Your task to perform on an android device: Open calendar and show me the fourth week of next month Image 0: 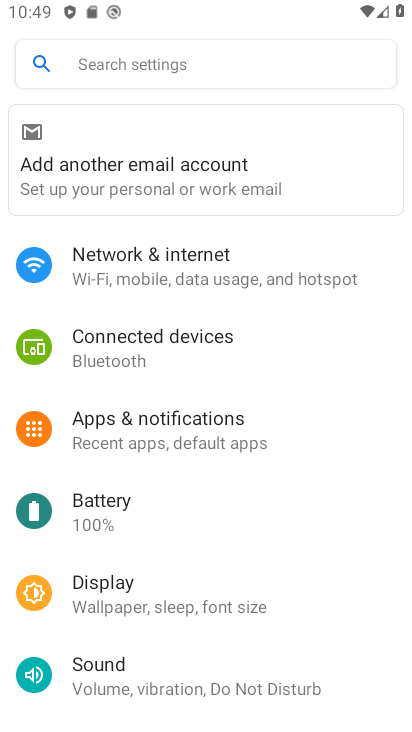
Step 0: press home button
Your task to perform on an android device: Open calendar and show me the fourth week of next month Image 1: 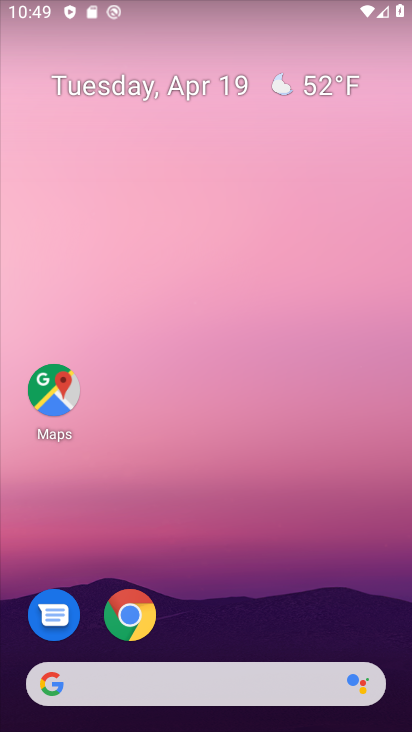
Step 1: drag from (269, 460) to (411, 54)
Your task to perform on an android device: Open calendar and show me the fourth week of next month Image 2: 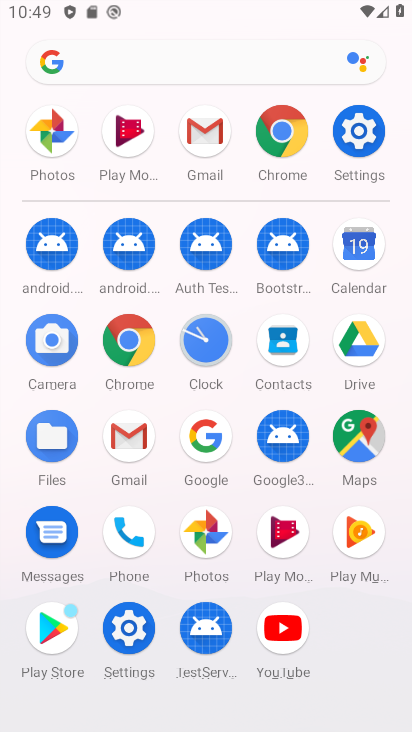
Step 2: click (360, 251)
Your task to perform on an android device: Open calendar and show me the fourth week of next month Image 3: 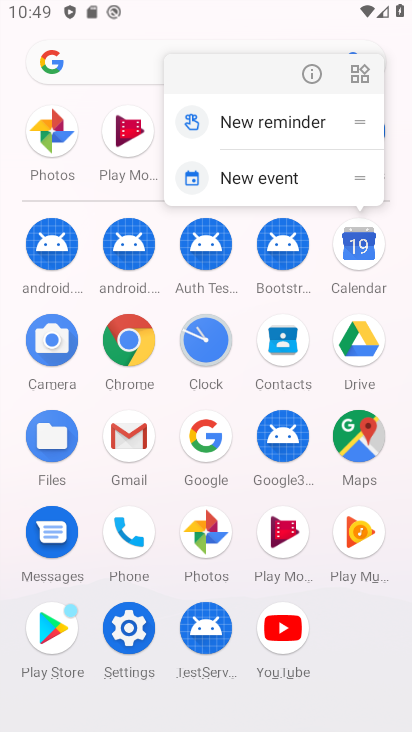
Step 3: click (360, 251)
Your task to perform on an android device: Open calendar and show me the fourth week of next month Image 4: 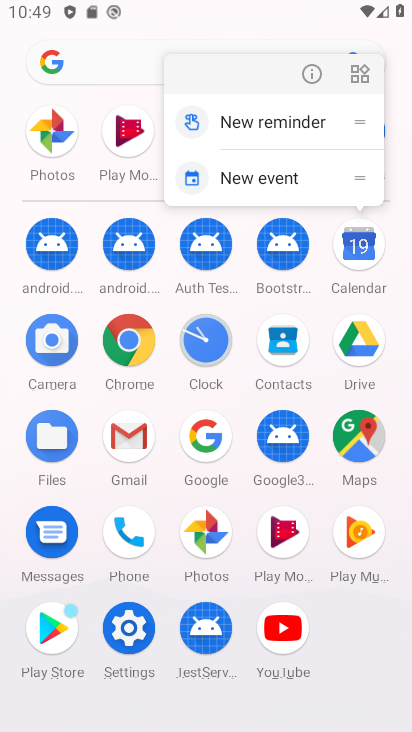
Step 4: click (360, 251)
Your task to perform on an android device: Open calendar and show me the fourth week of next month Image 5: 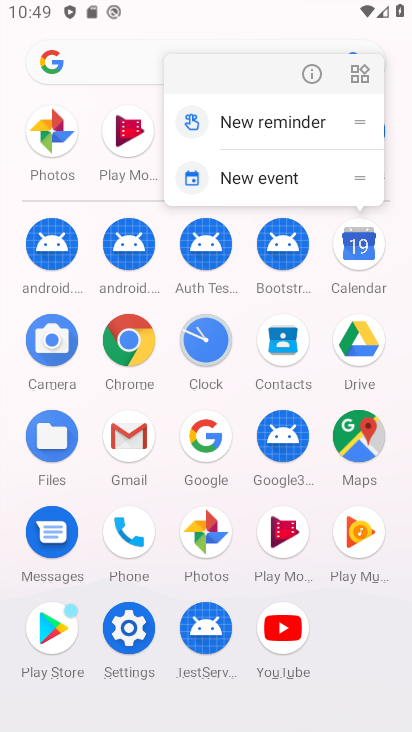
Step 5: click (360, 251)
Your task to perform on an android device: Open calendar and show me the fourth week of next month Image 6: 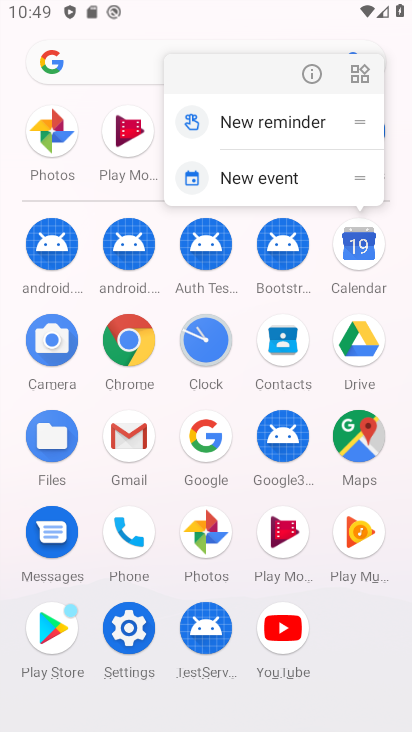
Step 6: click (360, 251)
Your task to perform on an android device: Open calendar and show me the fourth week of next month Image 7: 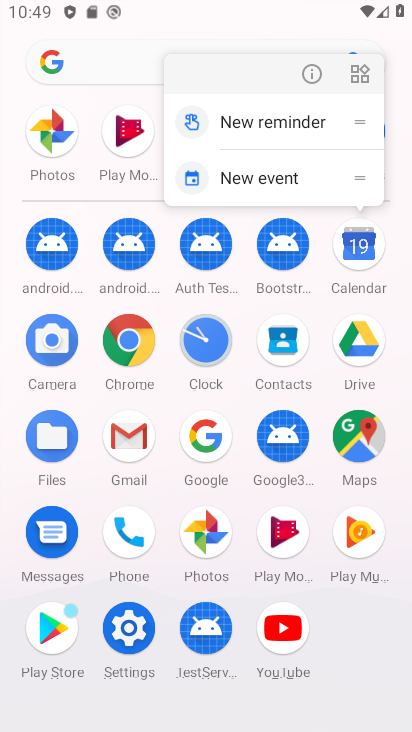
Step 7: click (360, 251)
Your task to perform on an android device: Open calendar and show me the fourth week of next month Image 8: 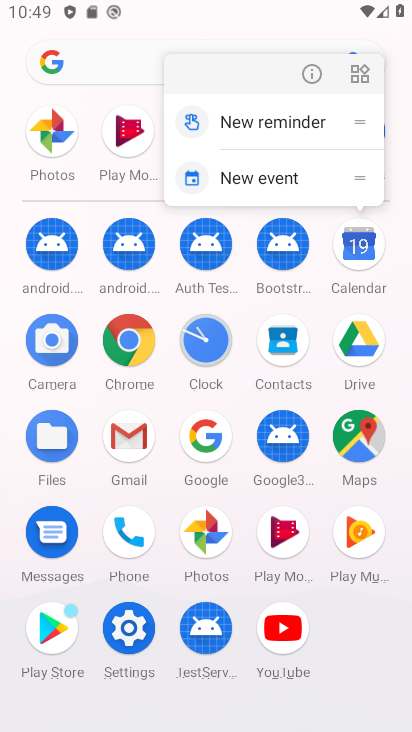
Step 8: click (360, 251)
Your task to perform on an android device: Open calendar and show me the fourth week of next month Image 9: 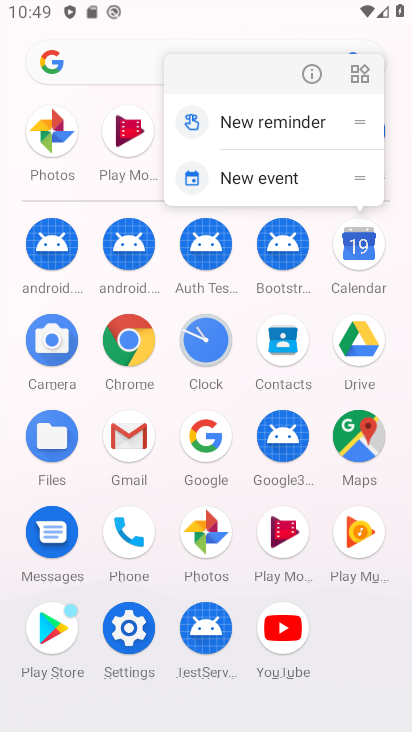
Step 9: click (360, 251)
Your task to perform on an android device: Open calendar and show me the fourth week of next month Image 10: 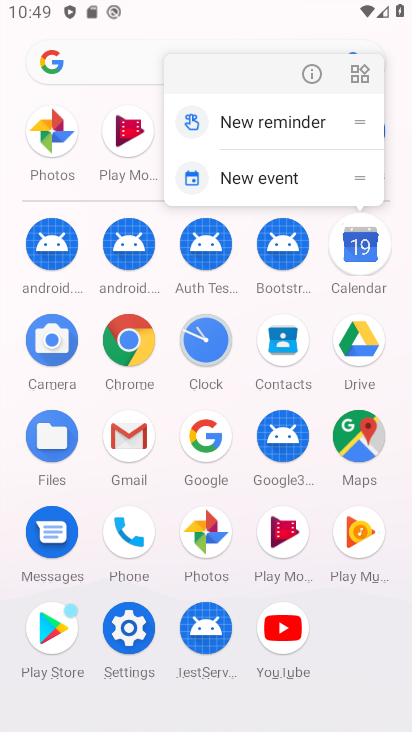
Step 10: click (360, 251)
Your task to perform on an android device: Open calendar and show me the fourth week of next month Image 11: 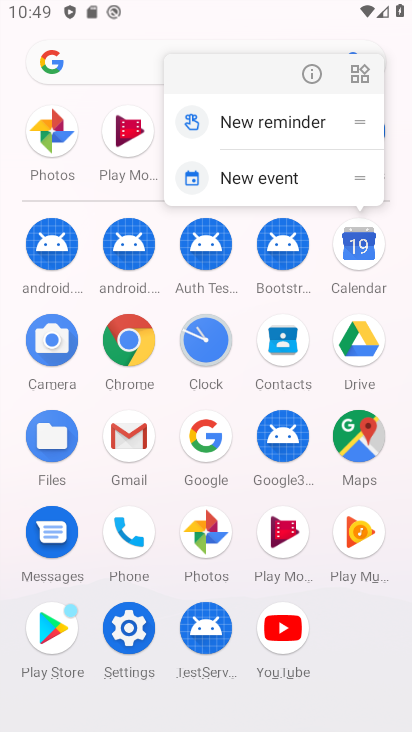
Step 11: click (360, 251)
Your task to perform on an android device: Open calendar and show me the fourth week of next month Image 12: 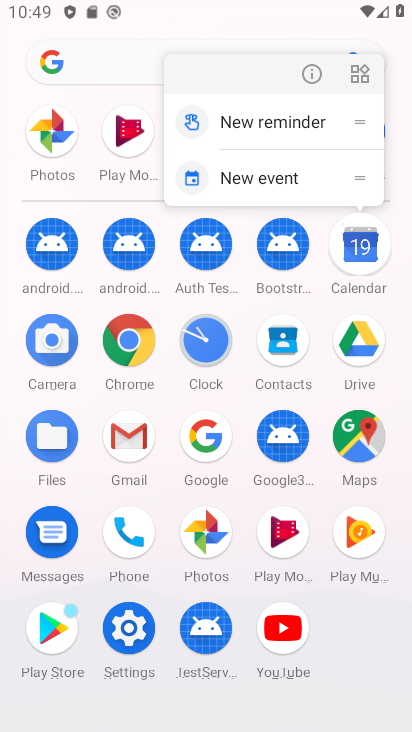
Step 12: click (360, 251)
Your task to perform on an android device: Open calendar and show me the fourth week of next month Image 13: 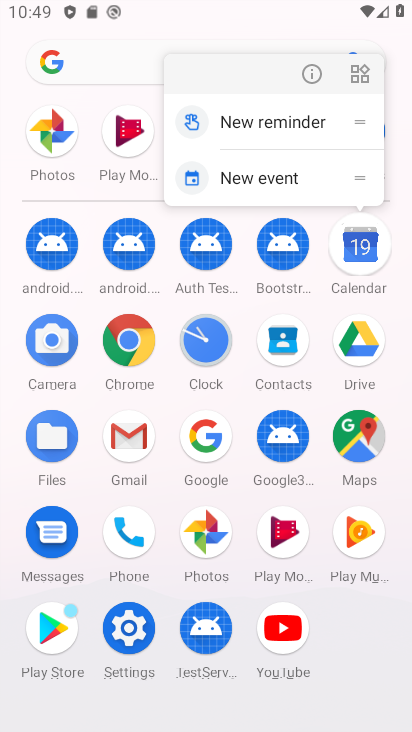
Step 13: click (360, 251)
Your task to perform on an android device: Open calendar and show me the fourth week of next month Image 14: 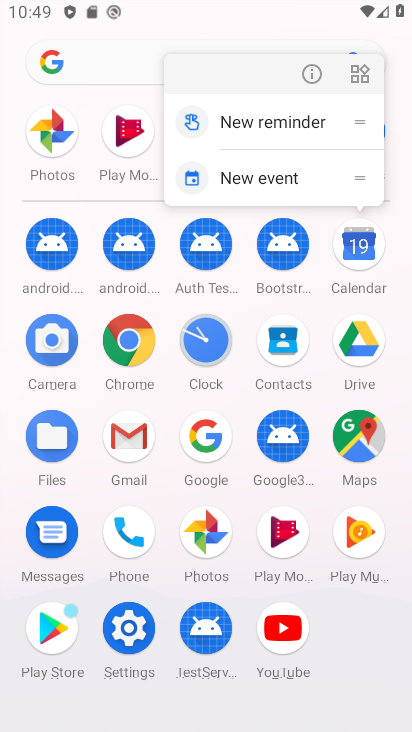
Step 14: click (360, 251)
Your task to perform on an android device: Open calendar and show me the fourth week of next month Image 15: 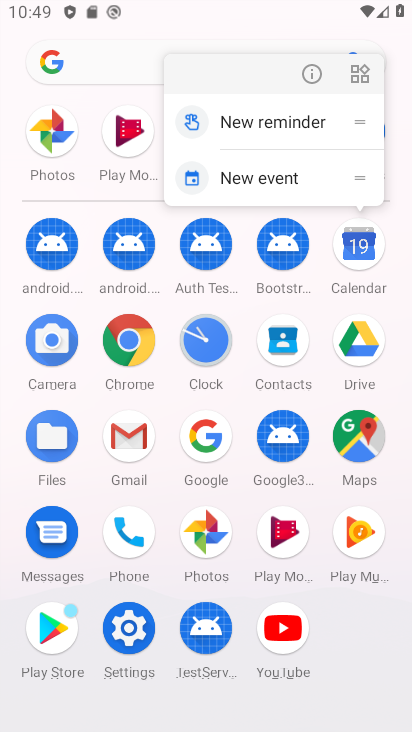
Step 15: click (360, 251)
Your task to perform on an android device: Open calendar and show me the fourth week of next month Image 16: 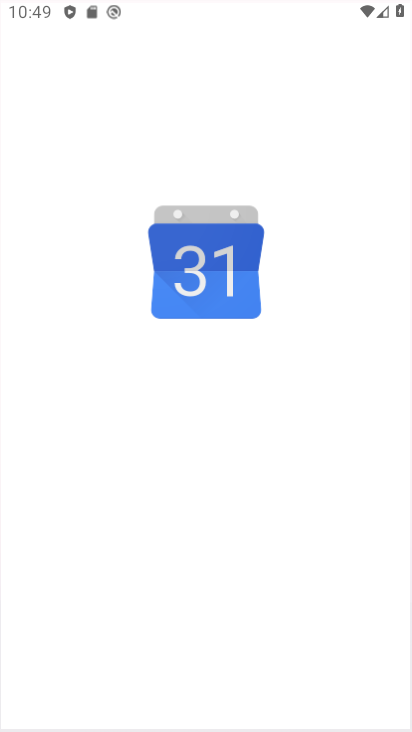
Step 16: click (360, 251)
Your task to perform on an android device: Open calendar and show me the fourth week of next month Image 17: 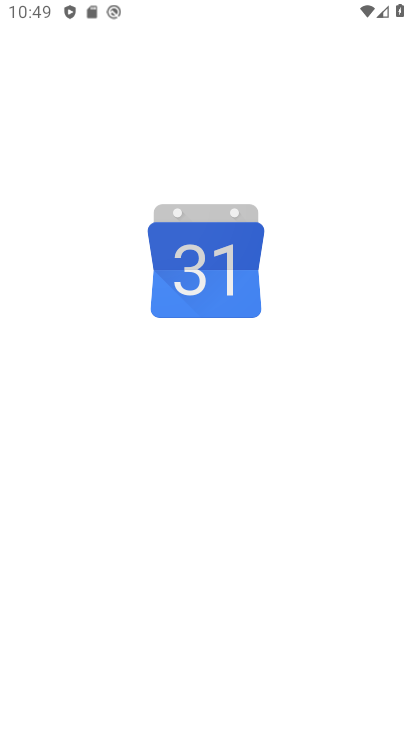
Step 17: click (360, 251)
Your task to perform on an android device: Open calendar and show me the fourth week of next month Image 18: 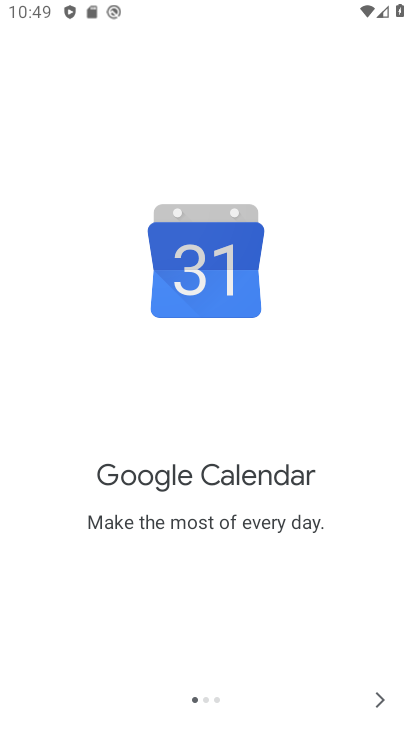
Step 18: click (378, 691)
Your task to perform on an android device: Open calendar and show me the fourth week of next month Image 19: 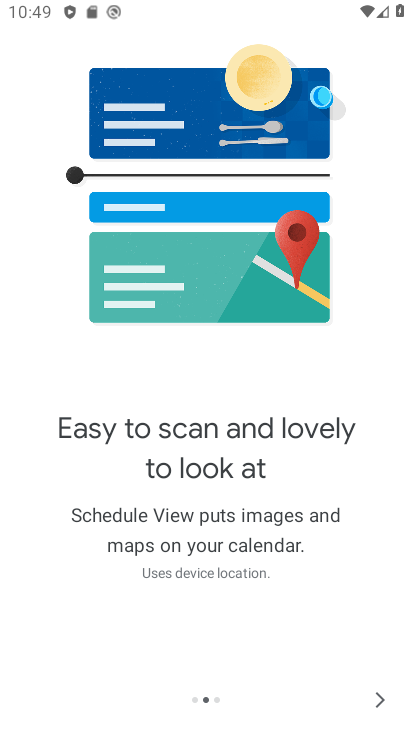
Step 19: click (378, 691)
Your task to perform on an android device: Open calendar and show me the fourth week of next month Image 20: 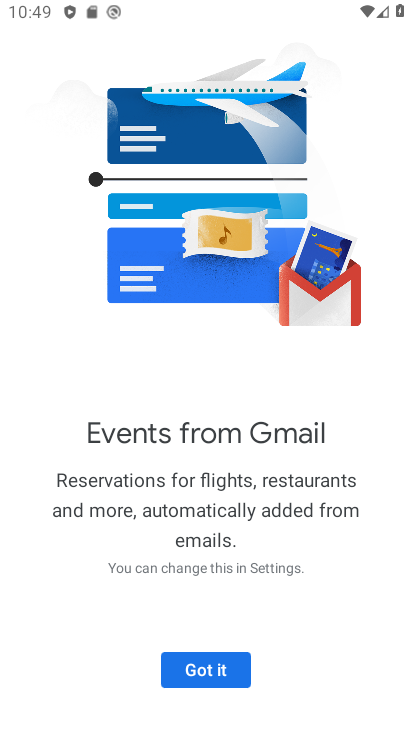
Step 20: click (231, 671)
Your task to perform on an android device: Open calendar and show me the fourth week of next month Image 21: 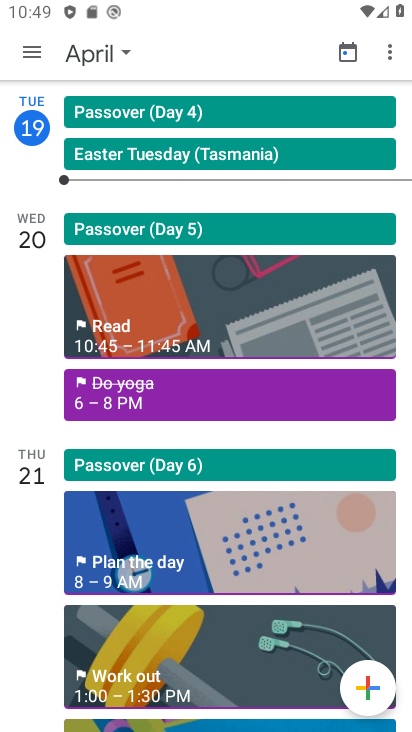
Step 21: click (31, 53)
Your task to perform on an android device: Open calendar and show me the fourth week of next month Image 22: 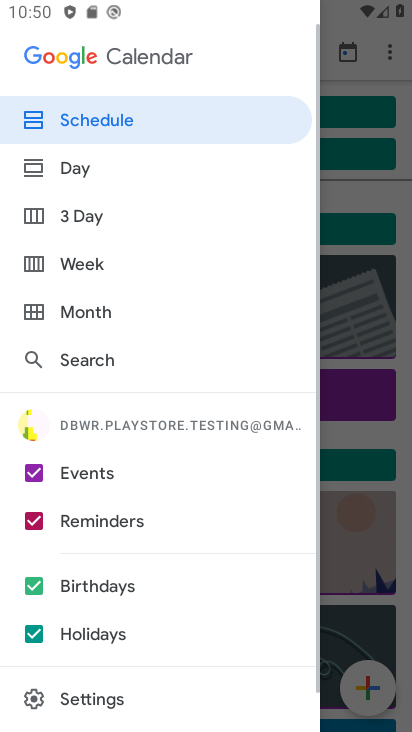
Step 22: click (84, 318)
Your task to perform on an android device: Open calendar and show me the fourth week of next month Image 23: 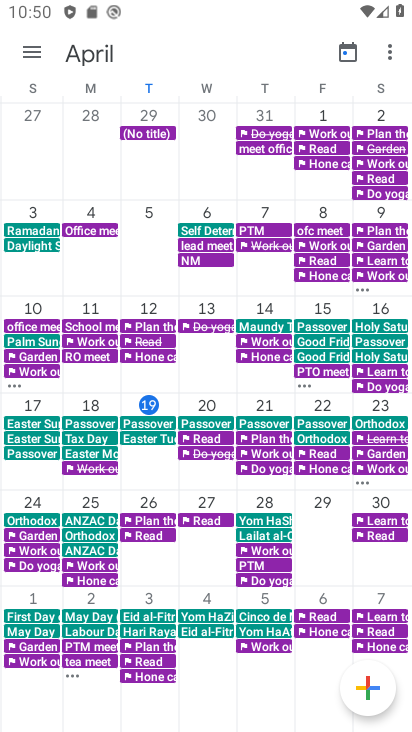
Step 23: drag from (325, 310) to (10, 301)
Your task to perform on an android device: Open calendar and show me the fourth week of next month Image 24: 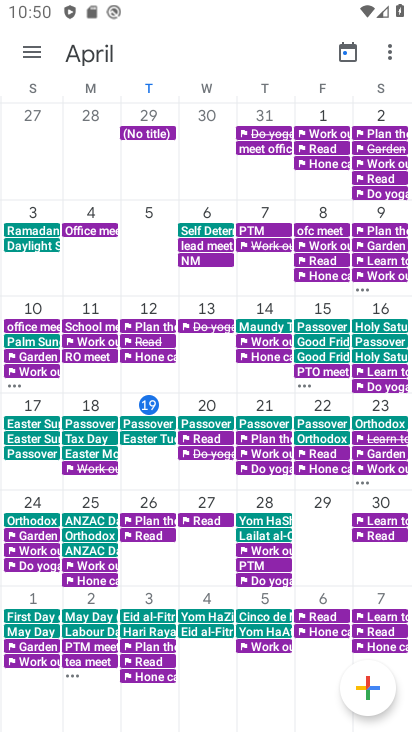
Step 24: drag from (381, 345) to (0, 393)
Your task to perform on an android device: Open calendar and show me the fourth week of next month Image 25: 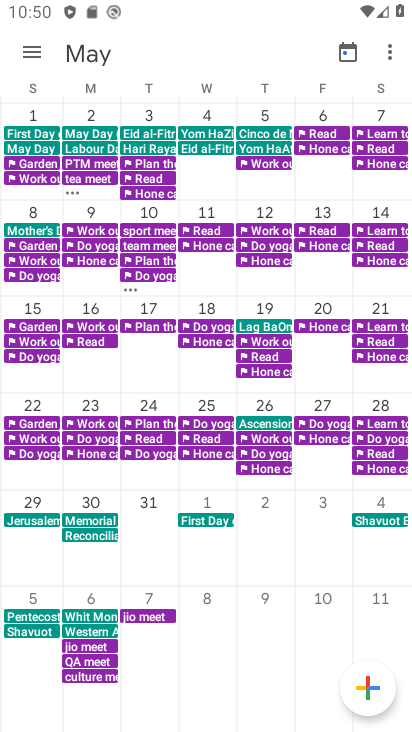
Step 25: click (363, 333)
Your task to perform on an android device: Open calendar and show me the fourth week of next month Image 26: 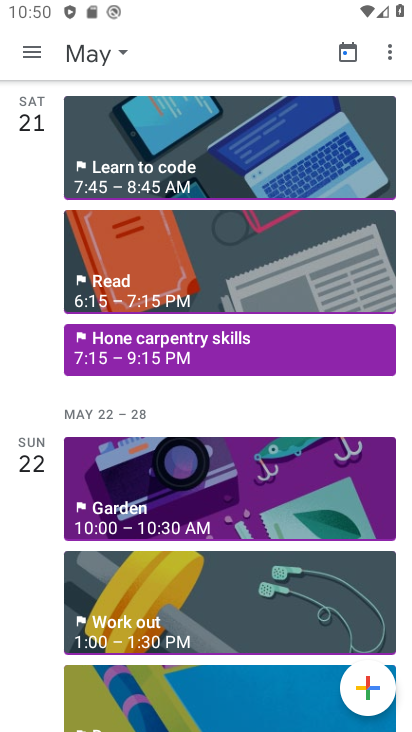
Step 26: task complete